Your task to perform on an android device: Toggle the flashlight Image 0: 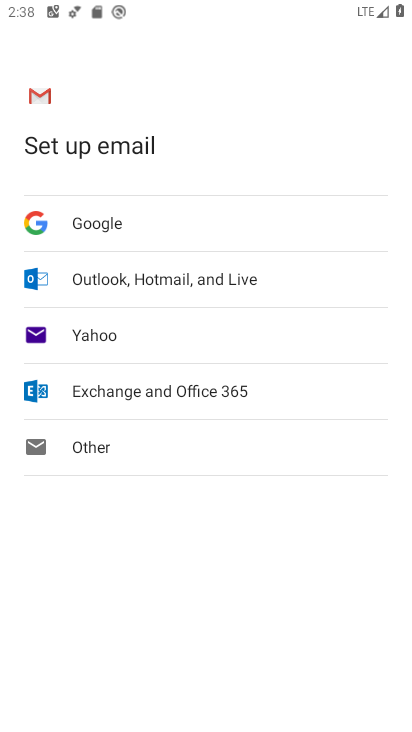
Step 0: press home button
Your task to perform on an android device: Toggle the flashlight Image 1: 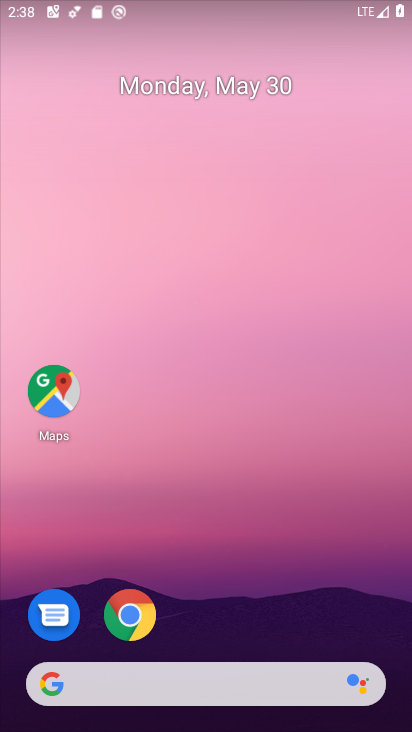
Step 1: drag from (233, 556) to (276, 22)
Your task to perform on an android device: Toggle the flashlight Image 2: 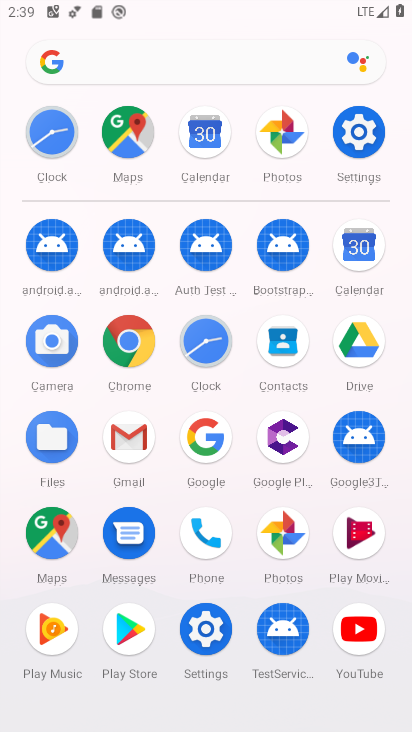
Step 2: click (361, 129)
Your task to perform on an android device: Toggle the flashlight Image 3: 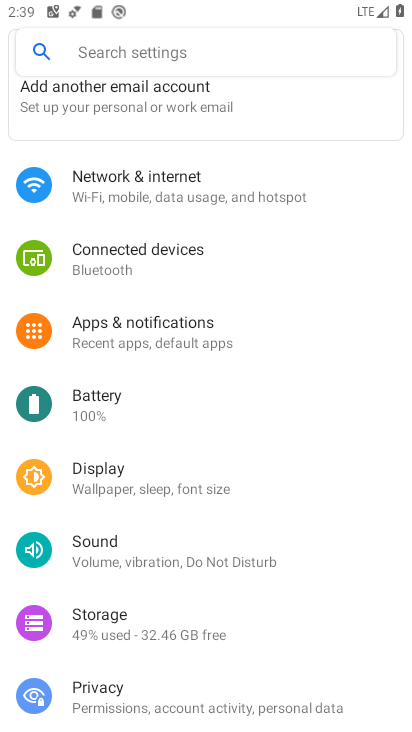
Step 3: drag from (247, 371) to (256, 569)
Your task to perform on an android device: Toggle the flashlight Image 4: 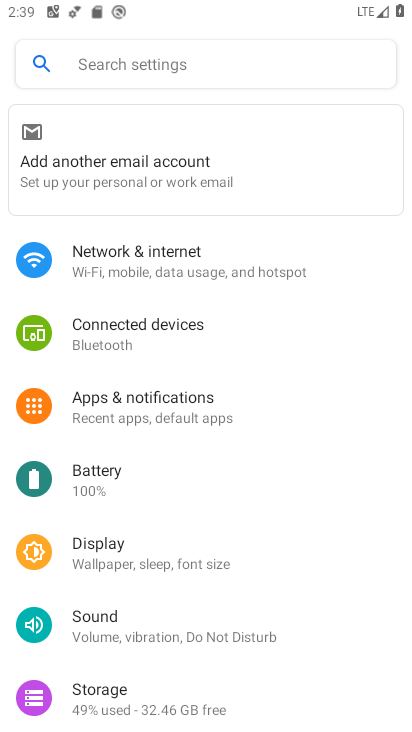
Step 4: click (255, 58)
Your task to perform on an android device: Toggle the flashlight Image 5: 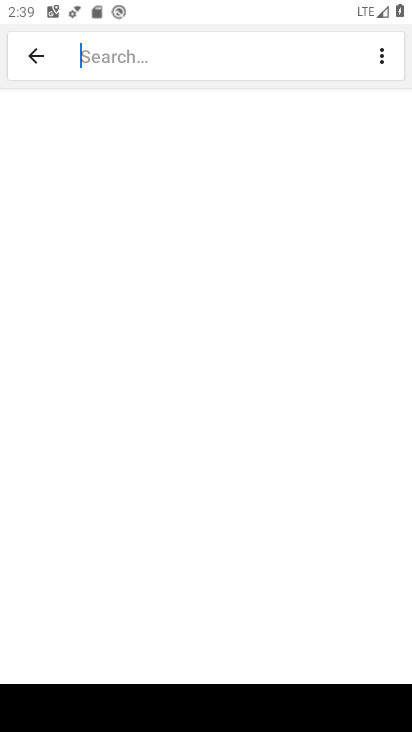
Step 5: type "Flashlight"
Your task to perform on an android device: Toggle the flashlight Image 6: 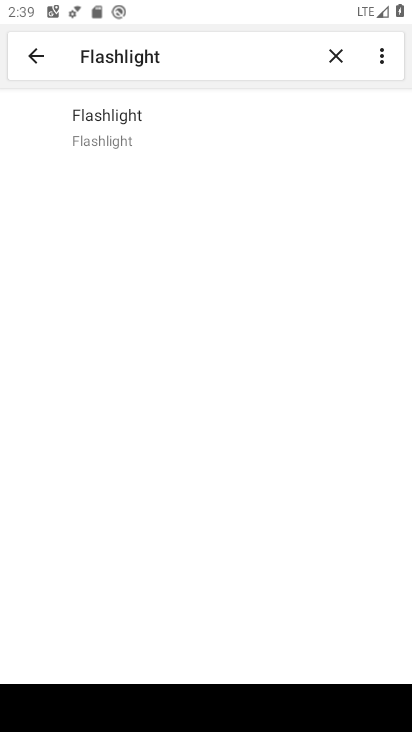
Step 6: click (126, 119)
Your task to perform on an android device: Toggle the flashlight Image 7: 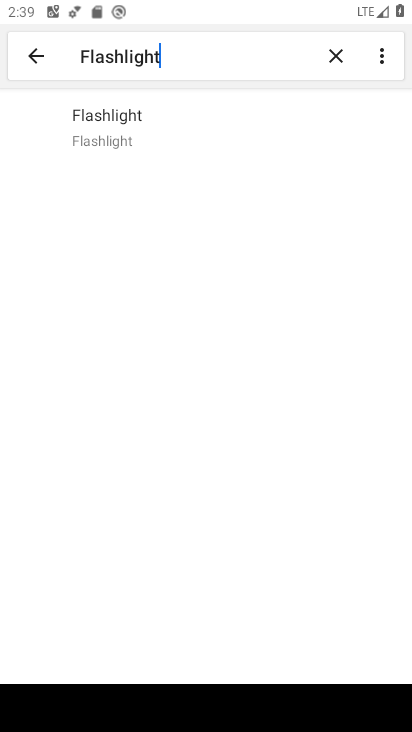
Step 7: task complete